Your task to perform on an android device: Show me recent news Image 0: 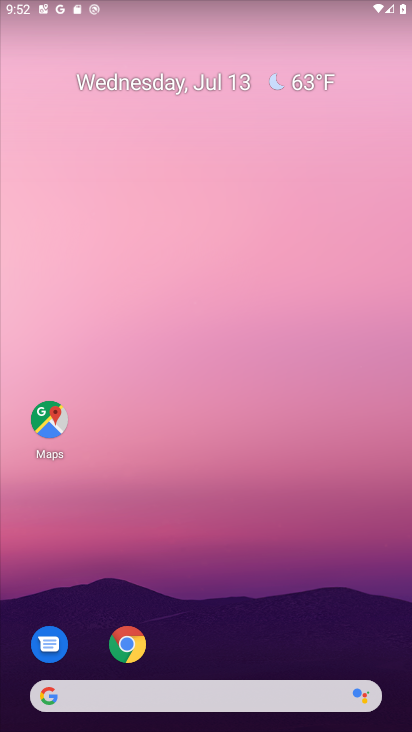
Step 0: drag from (9, 242) to (404, 291)
Your task to perform on an android device: Show me recent news Image 1: 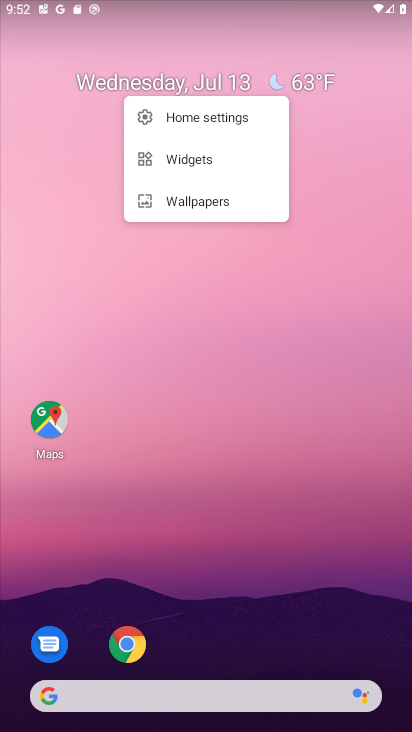
Step 1: task complete